Your task to perform on an android device: manage bookmarks in the chrome app Image 0: 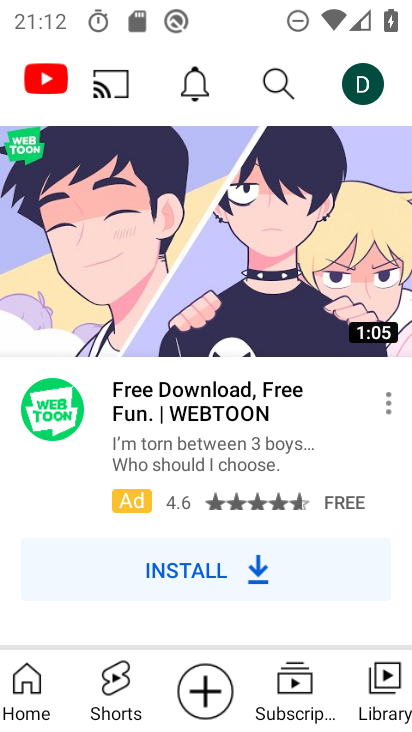
Step 0: press home button
Your task to perform on an android device: manage bookmarks in the chrome app Image 1: 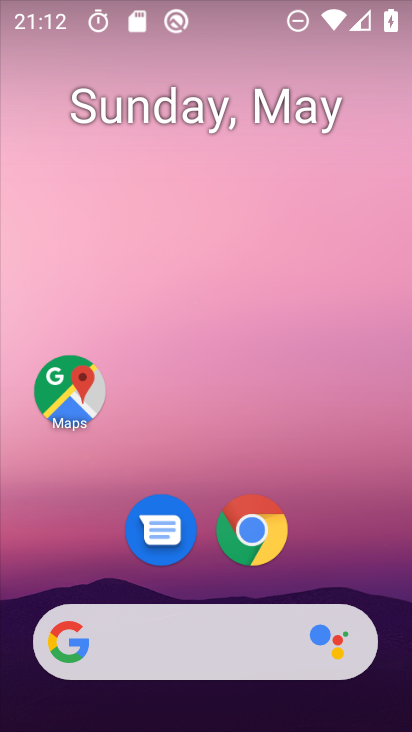
Step 1: drag from (240, 673) to (255, 116)
Your task to perform on an android device: manage bookmarks in the chrome app Image 2: 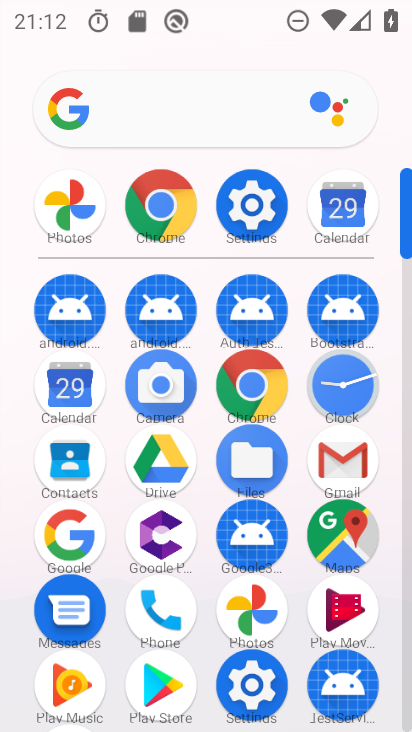
Step 2: click (182, 224)
Your task to perform on an android device: manage bookmarks in the chrome app Image 3: 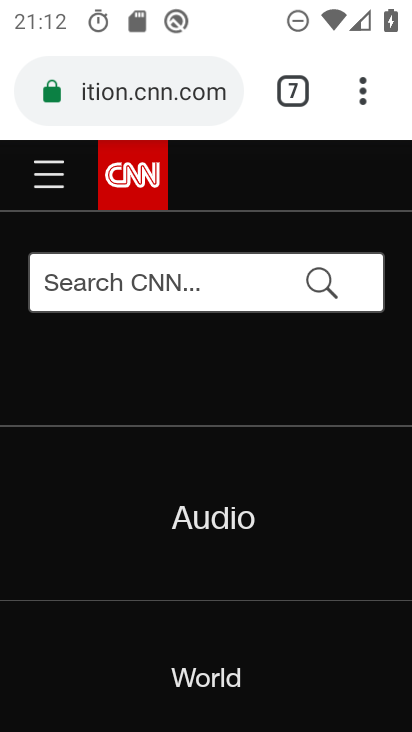
Step 3: click (346, 119)
Your task to perform on an android device: manage bookmarks in the chrome app Image 4: 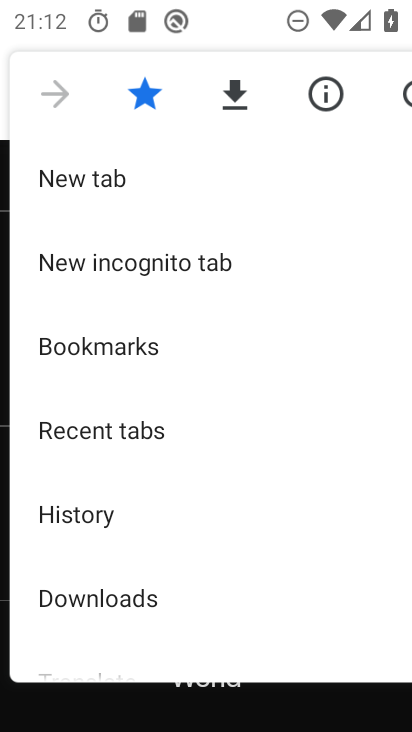
Step 4: click (134, 350)
Your task to perform on an android device: manage bookmarks in the chrome app Image 5: 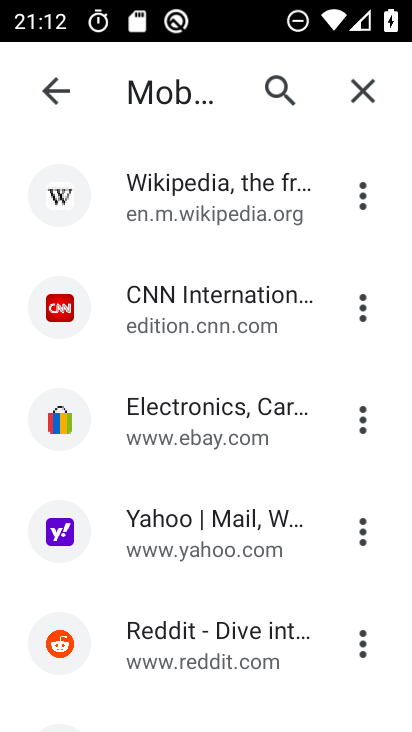
Step 5: task complete